Your task to perform on an android device: check google app version Image 0: 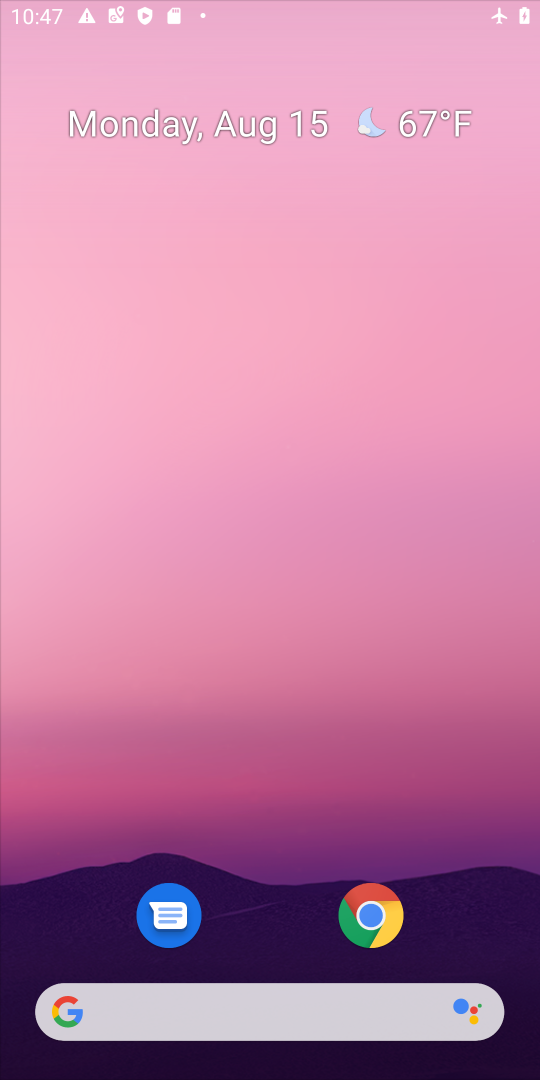
Step 0: press home button
Your task to perform on an android device: check google app version Image 1: 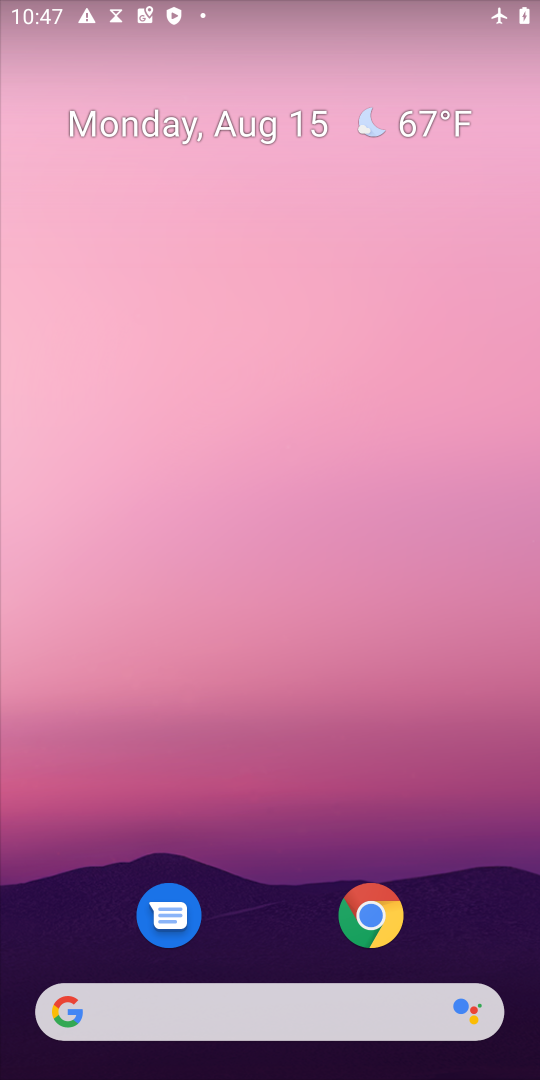
Step 1: drag from (263, 943) to (342, 323)
Your task to perform on an android device: check google app version Image 2: 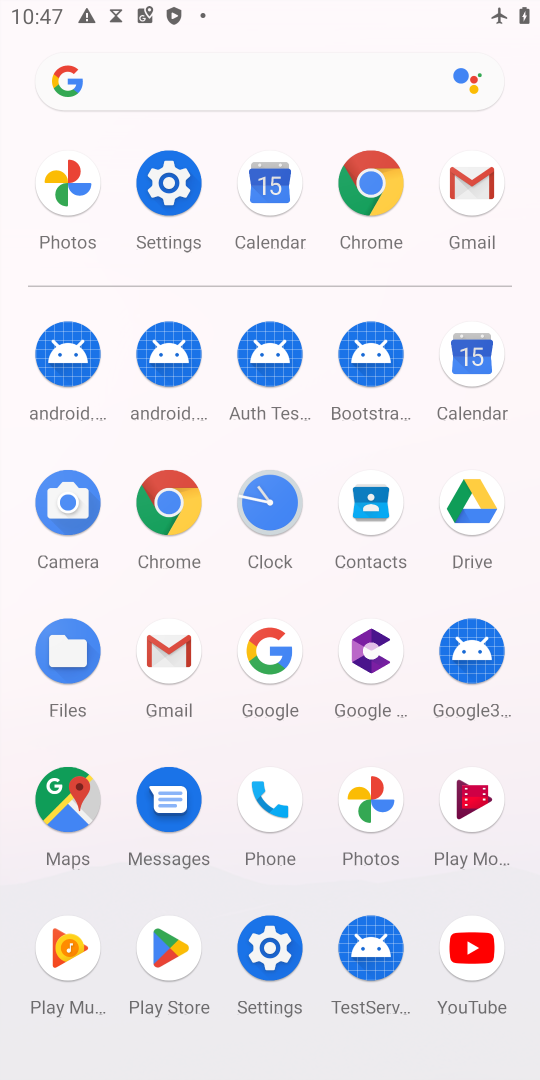
Step 2: click (268, 659)
Your task to perform on an android device: check google app version Image 3: 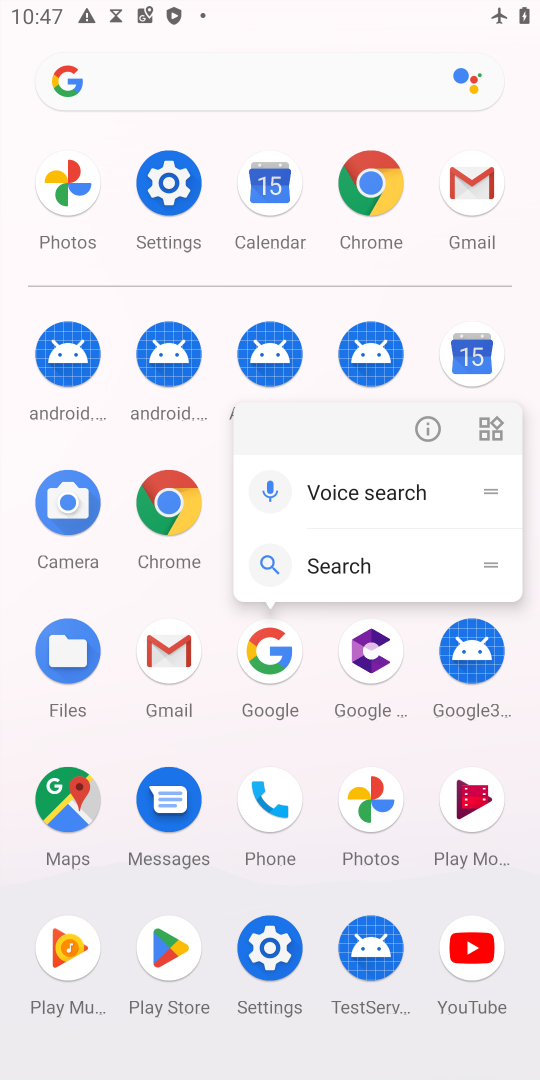
Step 3: click (430, 433)
Your task to perform on an android device: check google app version Image 4: 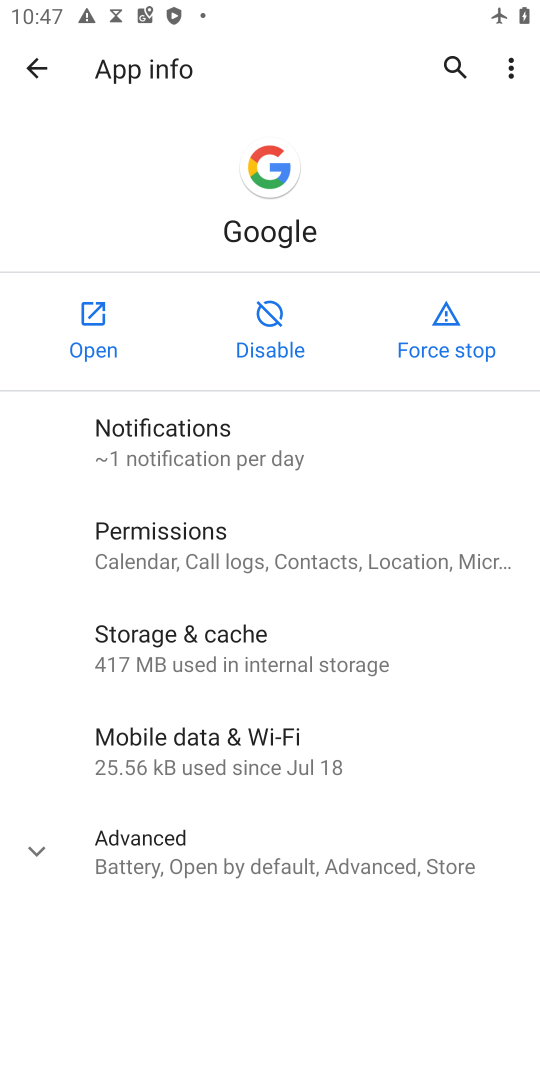
Step 4: click (148, 860)
Your task to perform on an android device: check google app version Image 5: 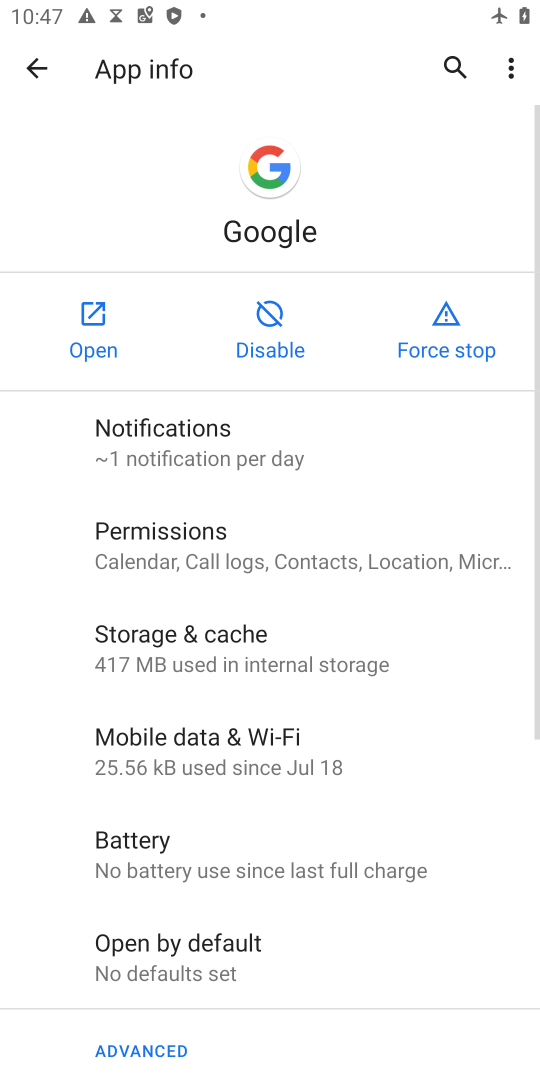
Step 5: task complete